Your task to perform on an android device: make emails show in primary in the gmail app Image 0: 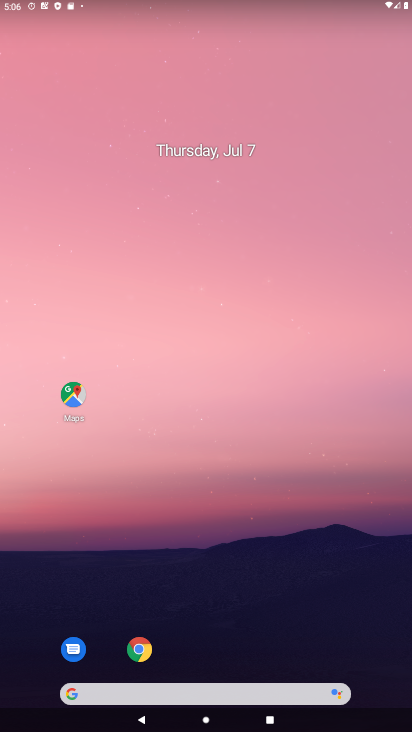
Step 0: drag from (364, 564) to (201, 0)
Your task to perform on an android device: make emails show in primary in the gmail app Image 1: 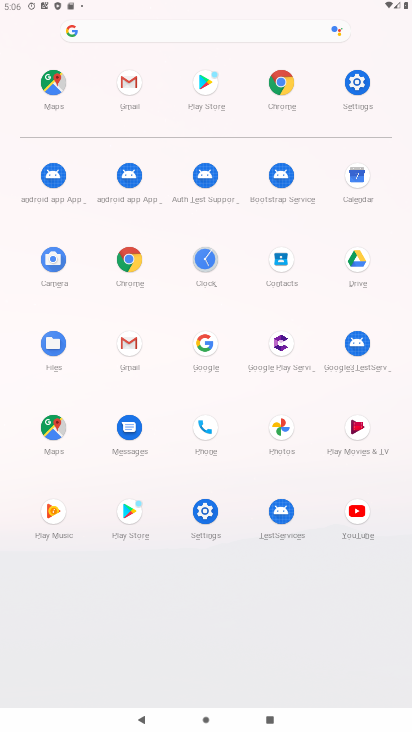
Step 1: click (130, 330)
Your task to perform on an android device: make emails show in primary in the gmail app Image 2: 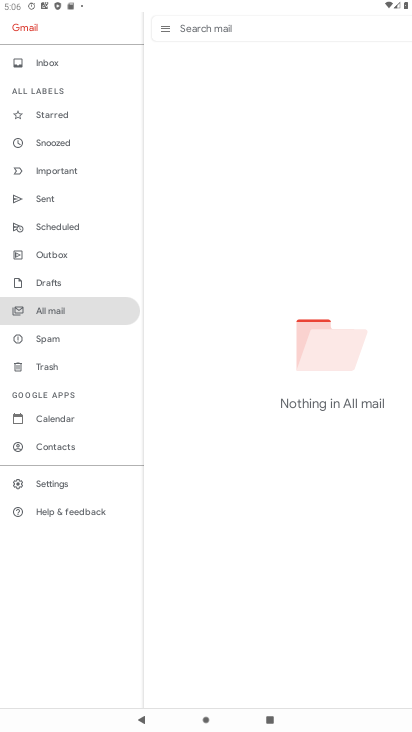
Step 2: task complete